Your task to perform on an android device: turn off priority inbox in the gmail app Image 0: 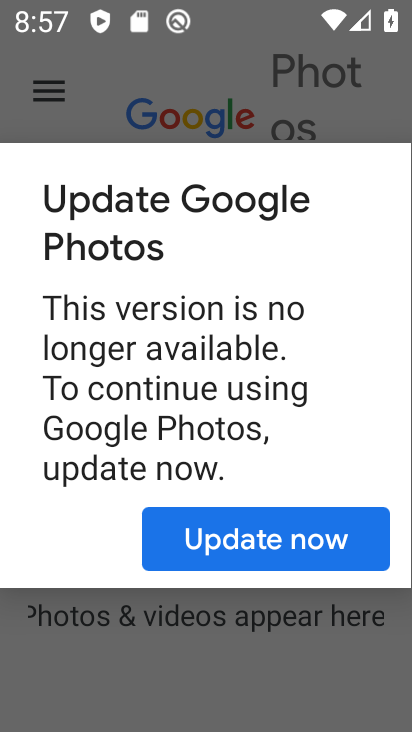
Step 0: press home button
Your task to perform on an android device: turn off priority inbox in the gmail app Image 1: 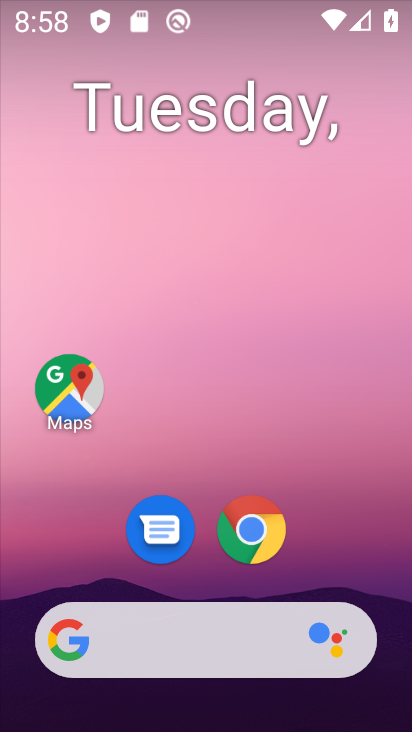
Step 1: click (338, 212)
Your task to perform on an android device: turn off priority inbox in the gmail app Image 2: 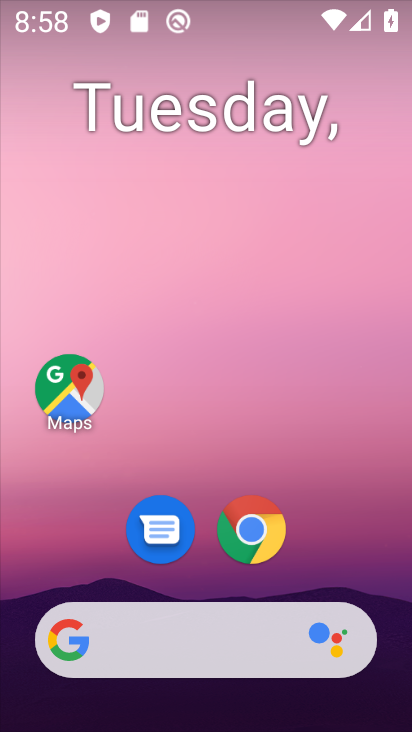
Step 2: drag from (392, 600) to (322, 163)
Your task to perform on an android device: turn off priority inbox in the gmail app Image 3: 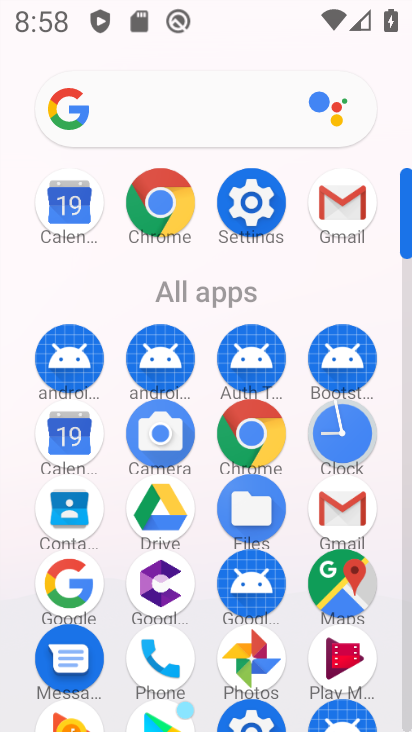
Step 3: click (322, 163)
Your task to perform on an android device: turn off priority inbox in the gmail app Image 4: 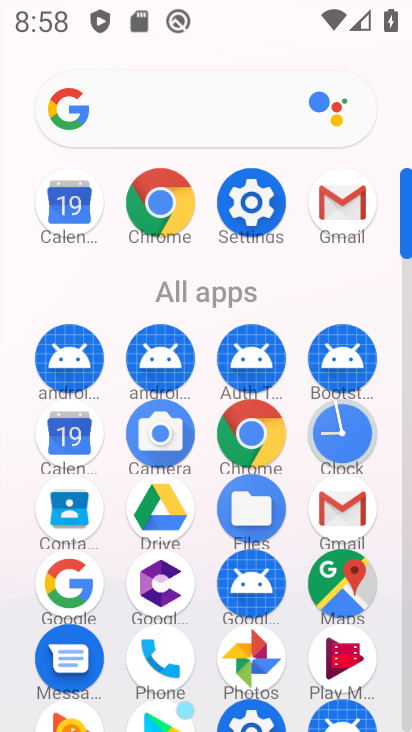
Step 4: click (340, 503)
Your task to perform on an android device: turn off priority inbox in the gmail app Image 5: 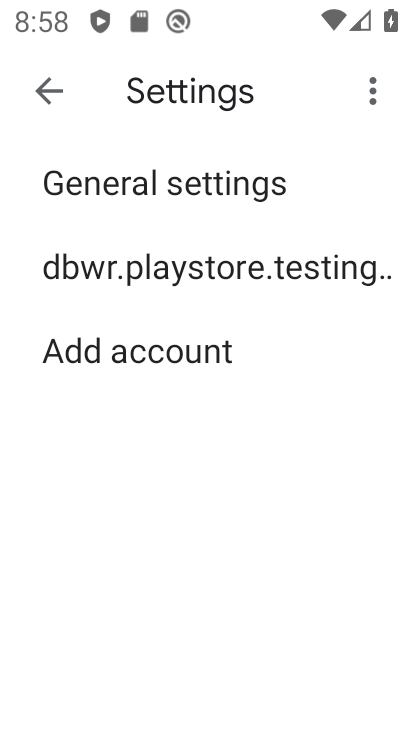
Step 5: click (163, 263)
Your task to perform on an android device: turn off priority inbox in the gmail app Image 6: 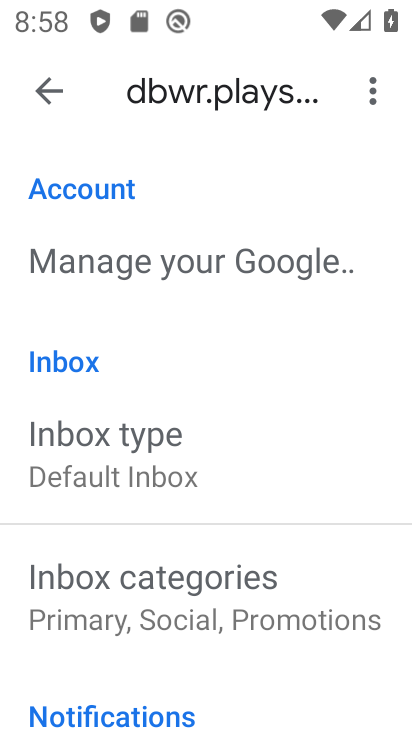
Step 6: click (96, 457)
Your task to perform on an android device: turn off priority inbox in the gmail app Image 7: 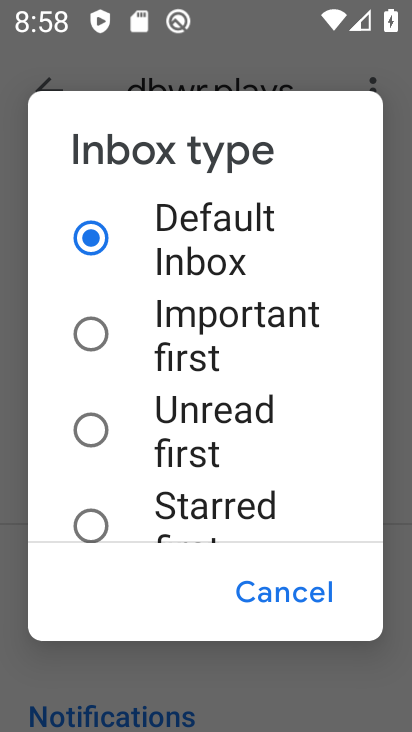
Step 7: task complete